Your task to perform on an android device: toggle wifi Image 0: 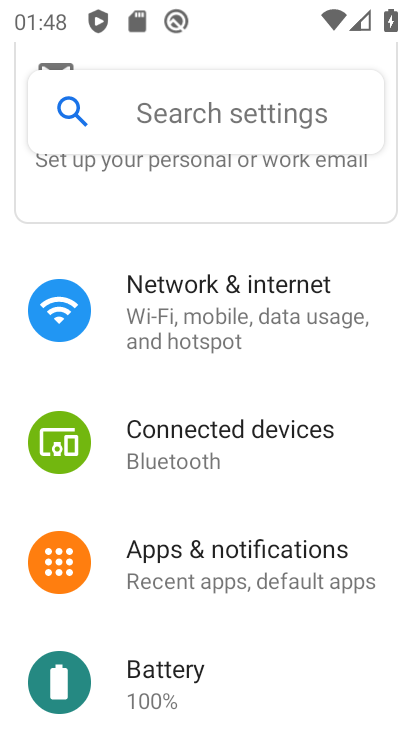
Step 0: click (264, 306)
Your task to perform on an android device: toggle wifi Image 1: 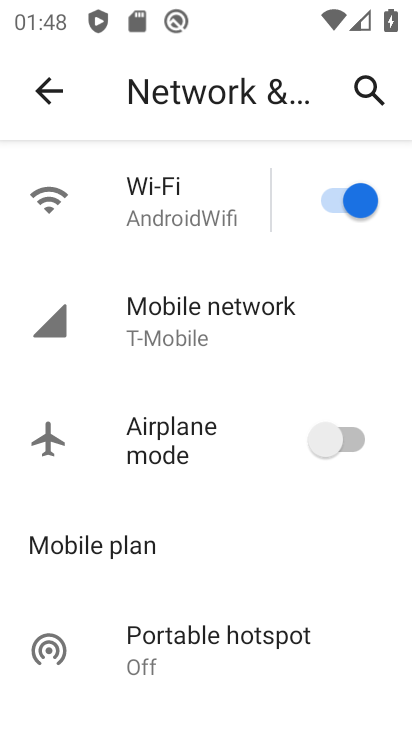
Step 1: click (347, 206)
Your task to perform on an android device: toggle wifi Image 2: 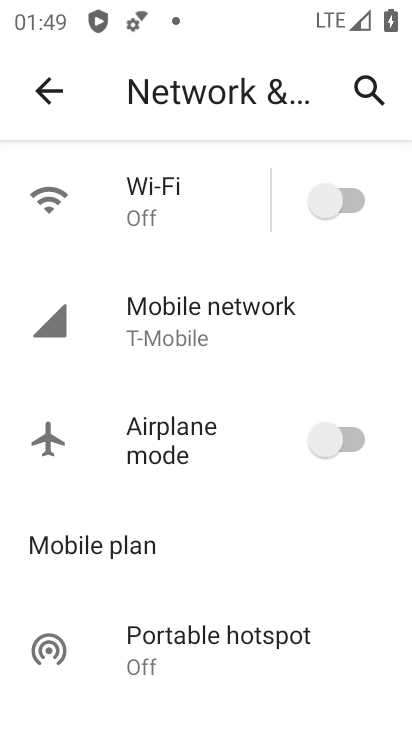
Step 2: task complete